Your task to perform on an android device: Open settings on Google Maps Image 0: 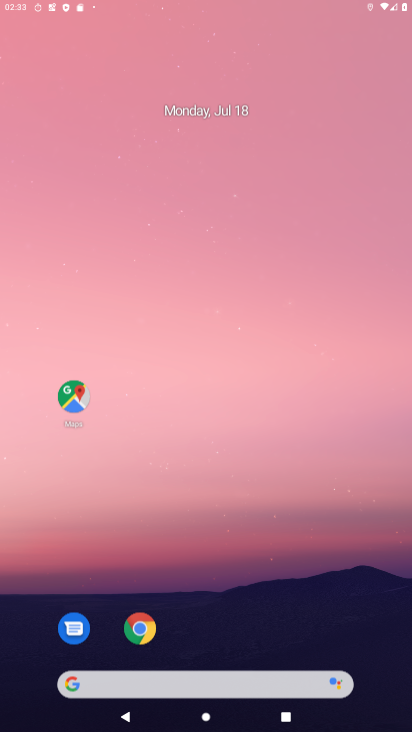
Step 0: press home button
Your task to perform on an android device: Open settings on Google Maps Image 1: 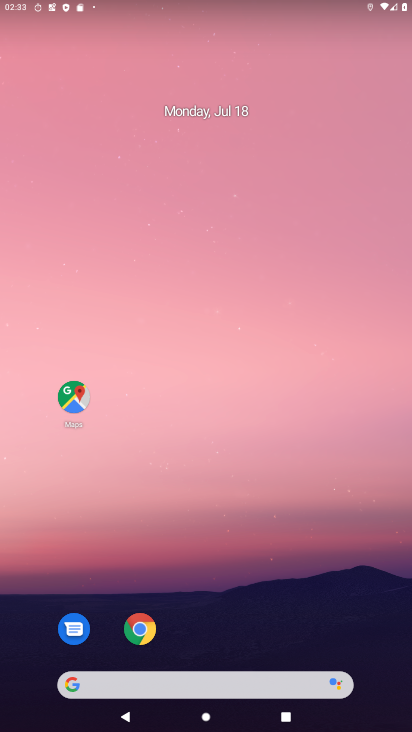
Step 1: click (68, 394)
Your task to perform on an android device: Open settings on Google Maps Image 2: 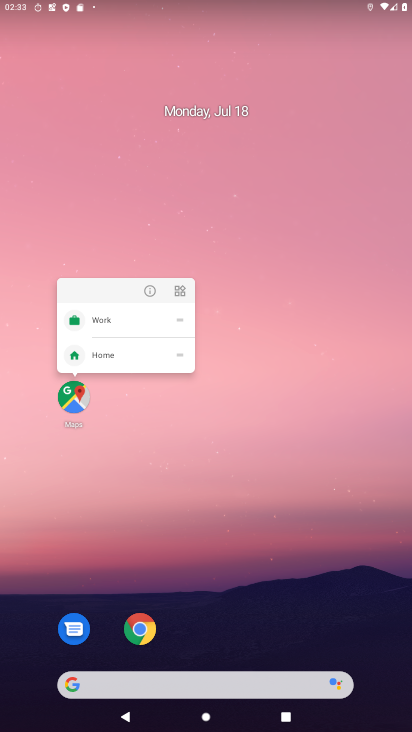
Step 2: click (70, 394)
Your task to perform on an android device: Open settings on Google Maps Image 3: 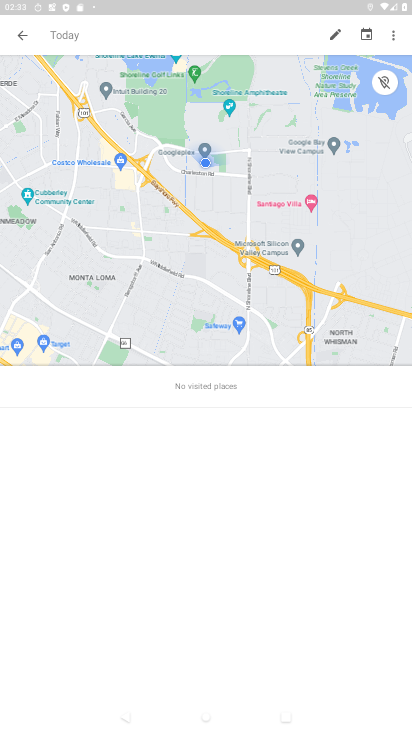
Step 3: click (15, 35)
Your task to perform on an android device: Open settings on Google Maps Image 4: 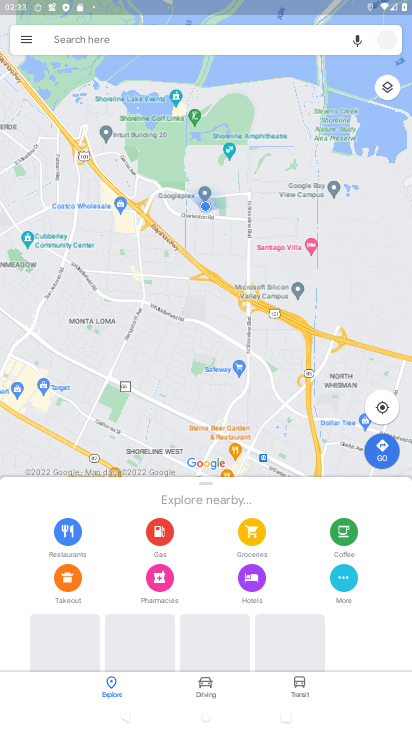
Step 4: click (22, 39)
Your task to perform on an android device: Open settings on Google Maps Image 5: 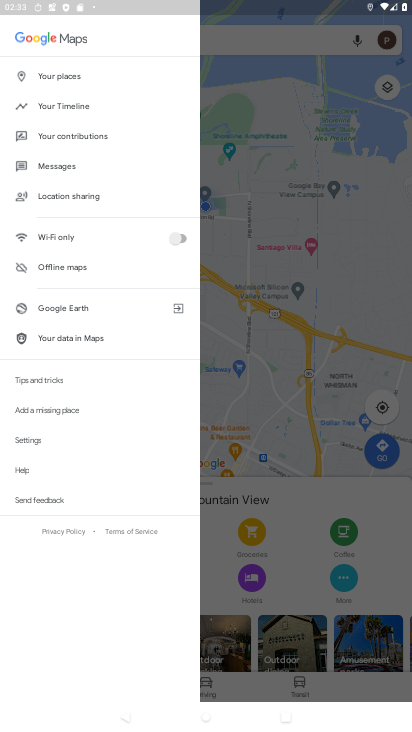
Step 5: click (50, 441)
Your task to perform on an android device: Open settings on Google Maps Image 6: 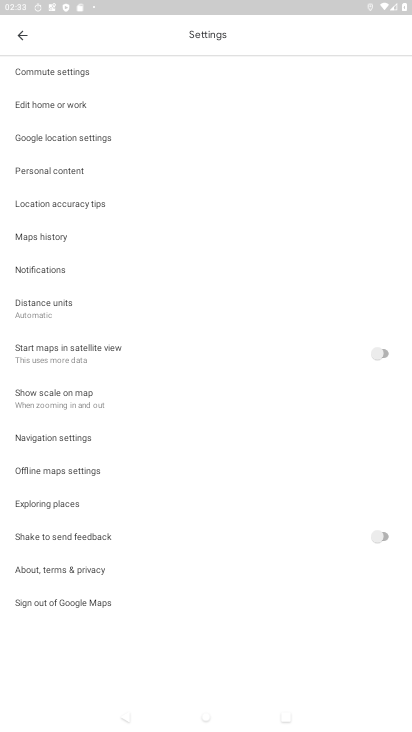
Step 6: task complete